Your task to perform on an android device: visit the assistant section in the google photos Image 0: 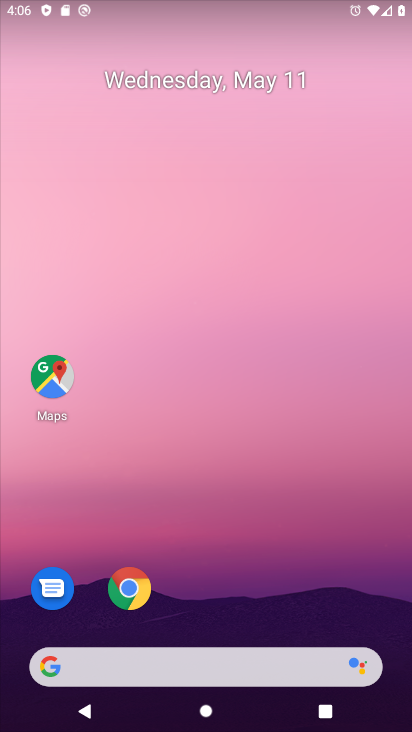
Step 0: drag from (239, 616) to (141, 154)
Your task to perform on an android device: visit the assistant section in the google photos Image 1: 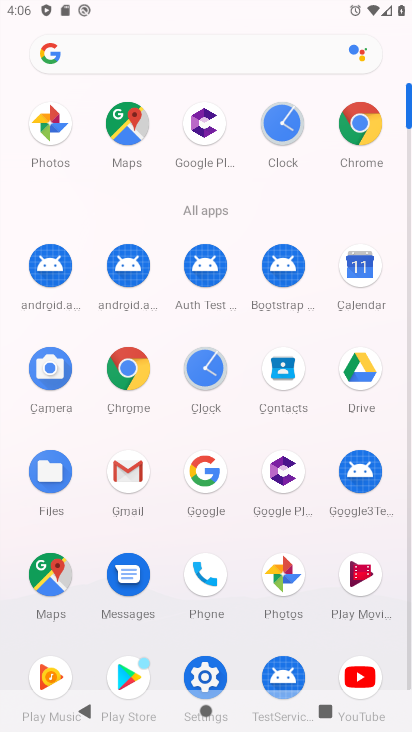
Step 1: click (289, 587)
Your task to perform on an android device: visit the assistant section in the google photos Image 2: 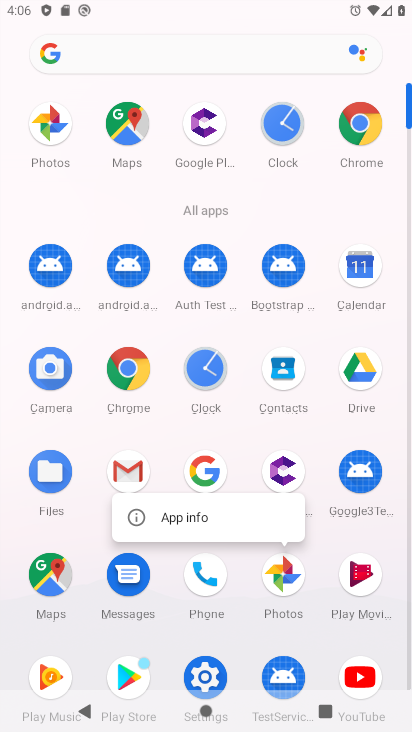
Step 2: click (289, 584)
Your task to perform on an android device: visit the assistant section in the google photos Image 3: 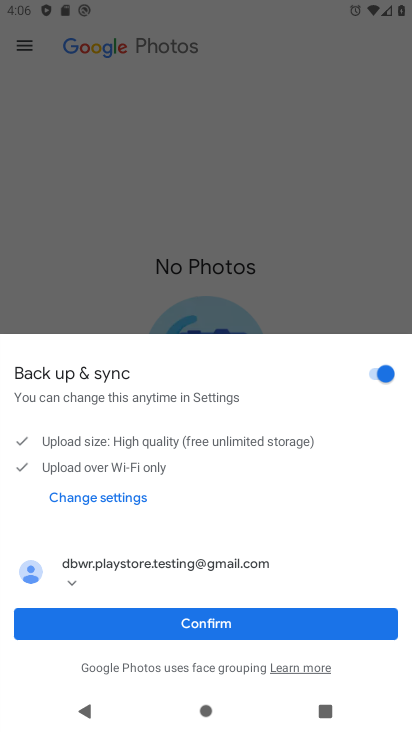
Step 3: click (218, 620)
Your task to perform on an android device: visit the assistant section in the google photos Image 4: 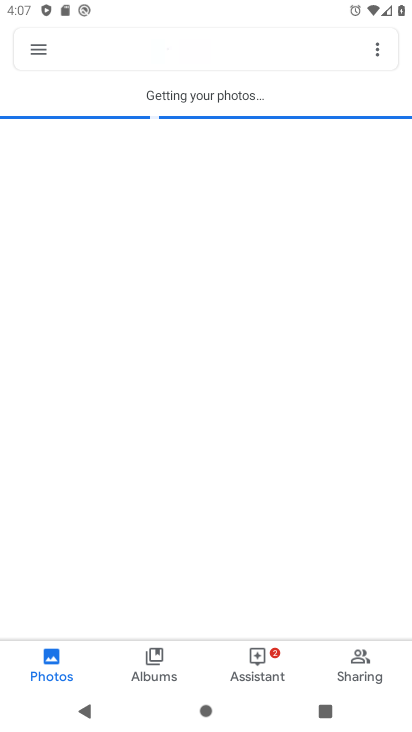
Step 4: click (255, 670)
Your task to perform on an android device: visit the assistant section in the google photos Image 5: 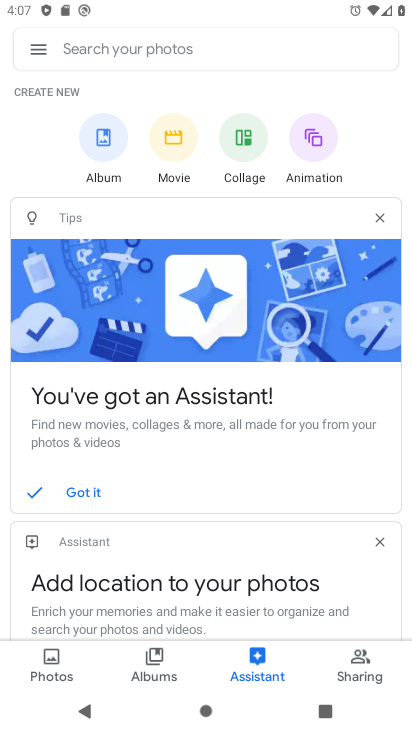
Step 5: task complete